Your task to perform on an android device: Go to Wikipedia Image 0: 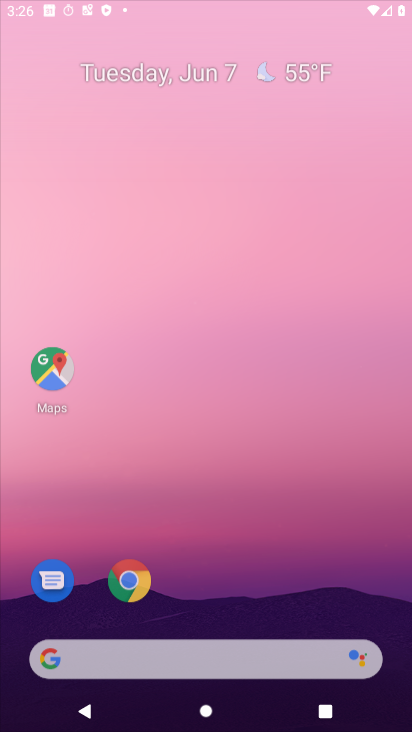
Step 0: press home button
Your task to perform on an android device: Go to Wikipedia Image 1: 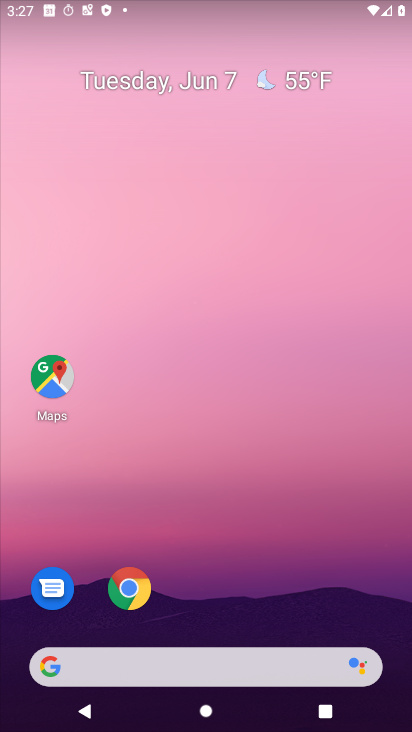
Step 1: click (45, 657)
Your task to perform on an android device: Go to Wikipedia Image 2: 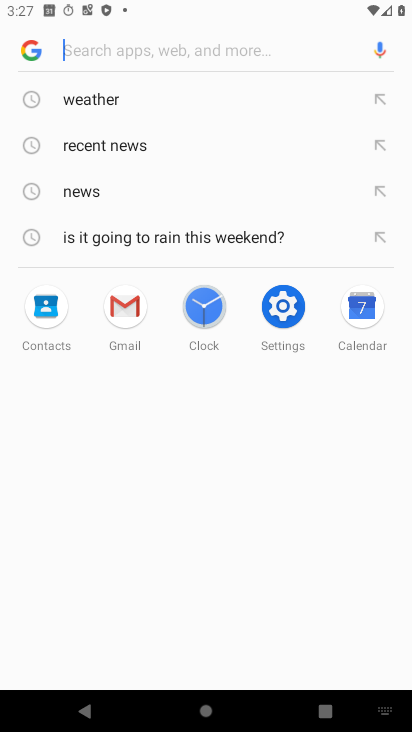
Step 2: type "Wikipedia"
Your task to perform on an android device: Go to Wikipedia Image 3: 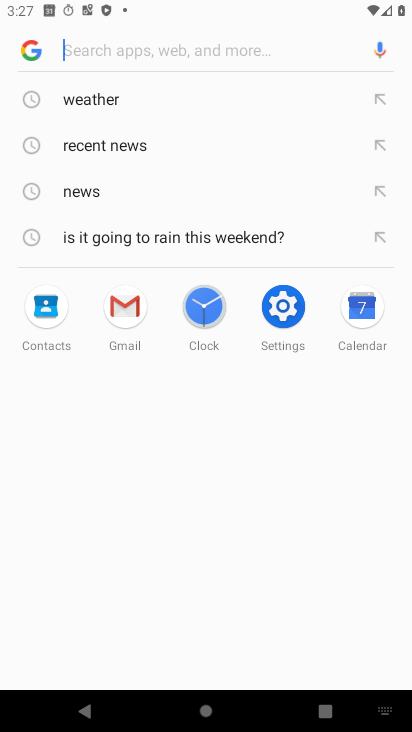
Step 3: click (155, 53)
Your task to perform on an android device: Go to Wikipedia Image 4: 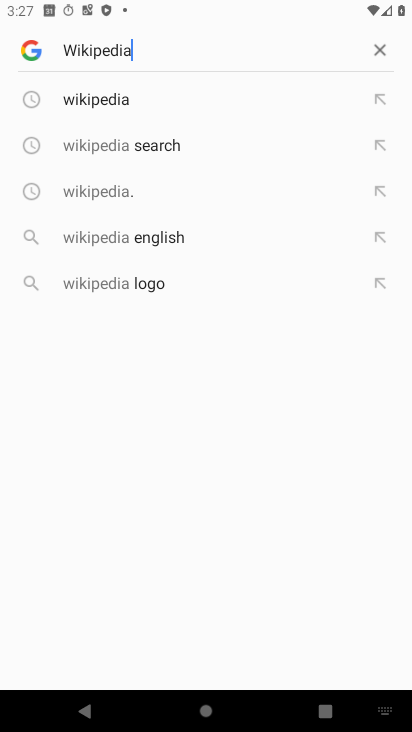
Step 4: click (87, 102)
Your task to perform on an android device: Go to Wikipedia Image 5: 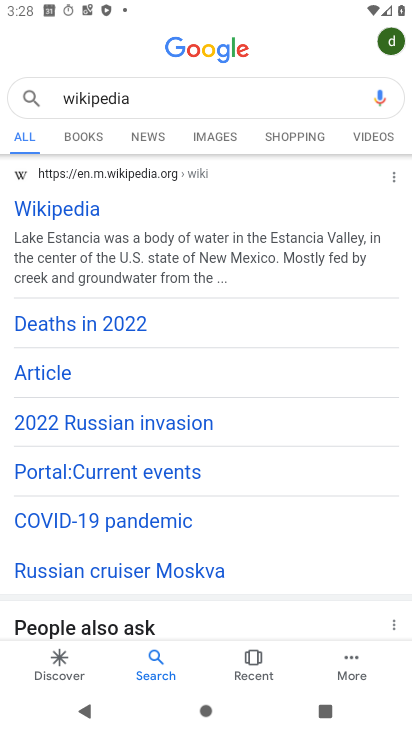
Step 5: click (57, 222)
Your task to perform on an android device: Go to Wikipedia Image 6: 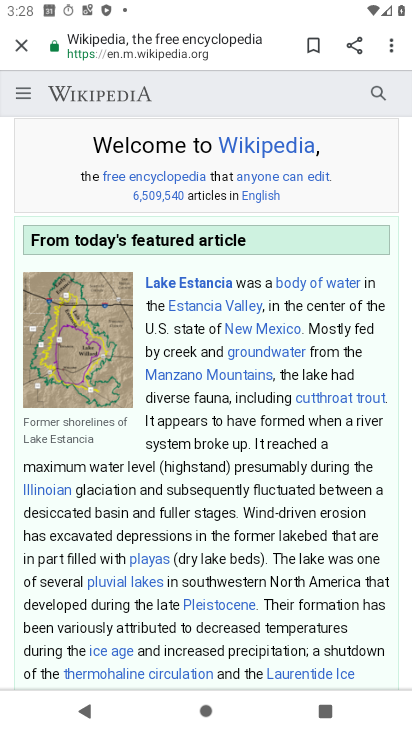
Step 6: task complete